Your task to perform on an android device: open app "eBay: The shopping marketplace" (install if not already installed) and enter user name: "articulated@icloud.com" and password: "excluding" Image 0: 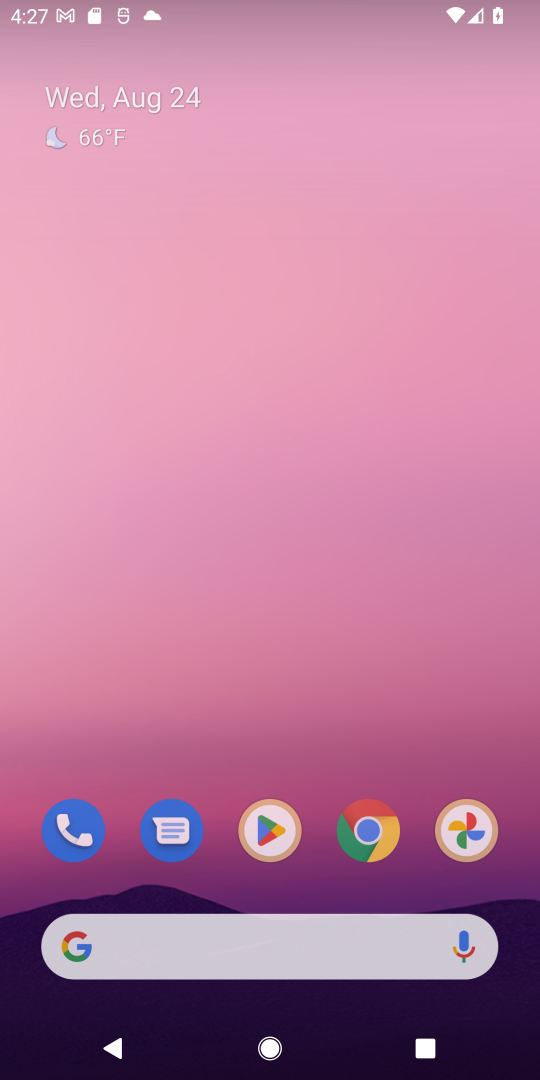
Step 0: press home button
Your task to perform on an android device: open app "eBay: The shopping marketplace" (install if not already installed) and enter user name: "articulated@icloud.com" and password: "excluding" Image 1: 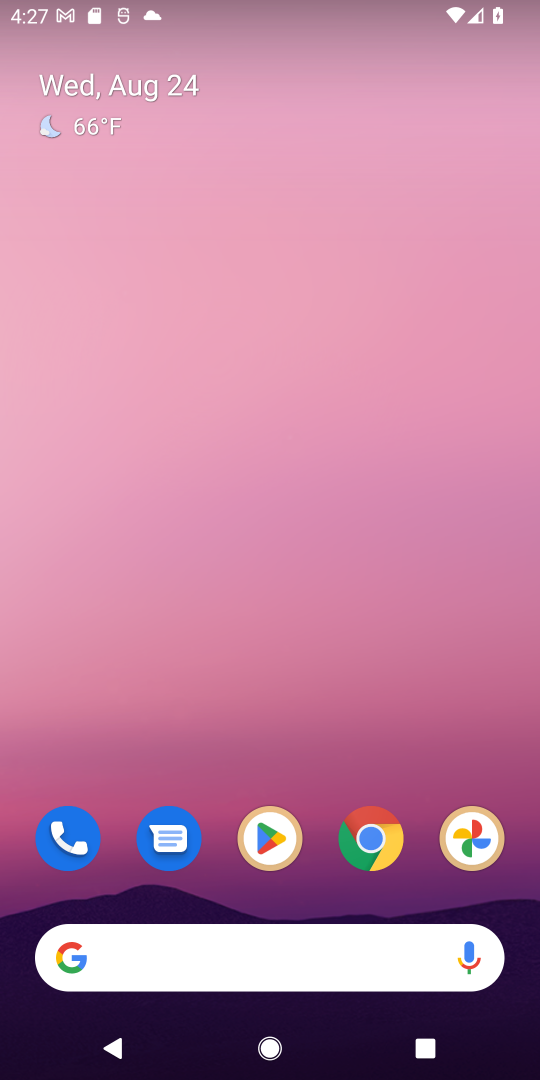
Step 1: click (267, 828)
Your task to perform on an android device: open app "eBay: The shopping marketplace" (install if not already installed) and enter user name: "articulated@icloud.com" and password: "excluding" Image 2: 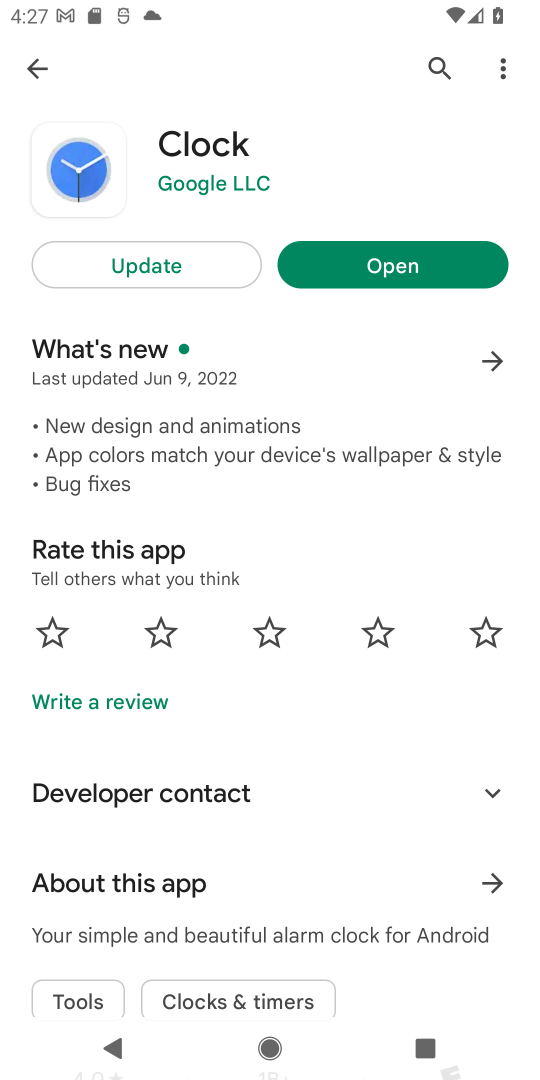
Step 2: click (442, 74)
Your task to perform on an android device: open app "eBay: The shopping marketplace" (install if not already installed) and enter user name: "articulated@icloud.com" and password: "excluding" Image 3: 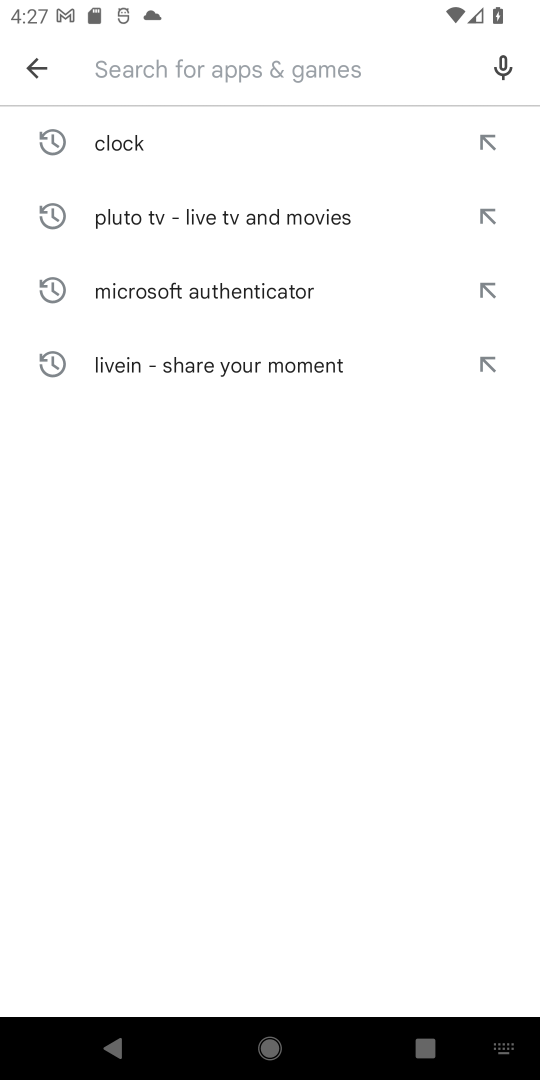
Step 3: type "eBay: The shopping marketplace"
Your task to perform on an android device: open app "eBay: The shopping marketplace" (install if not already installed) and enter user name: "articulated@icloud.com" and password: "excluding" Image 4: 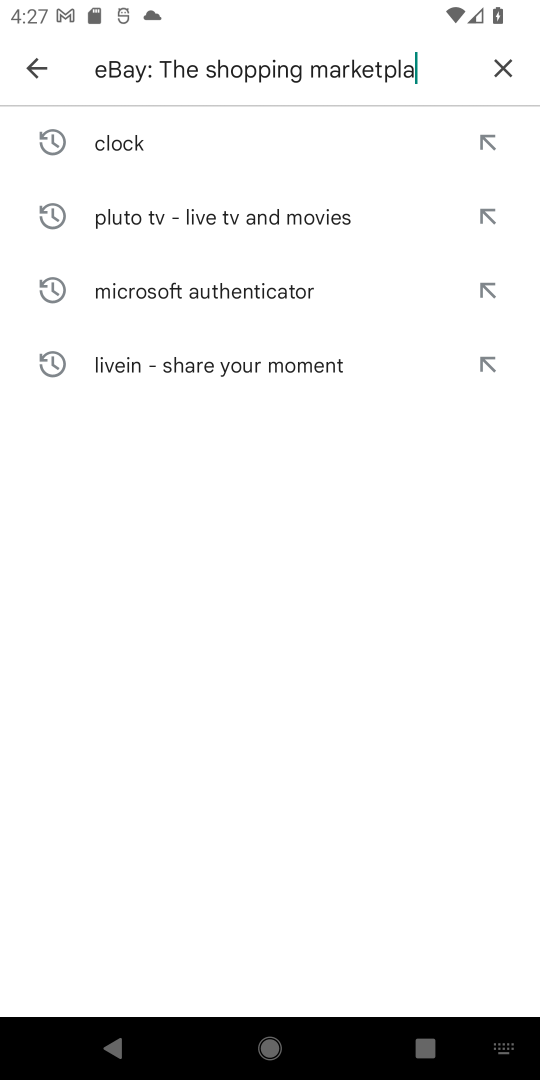
Step 4: type ""
Your task to perform on an android device: open app "eBay: The shopping marketplace" (install if not already installed) and enter user name: "articulated@icloud.com" and password: "excluding" Image 5: 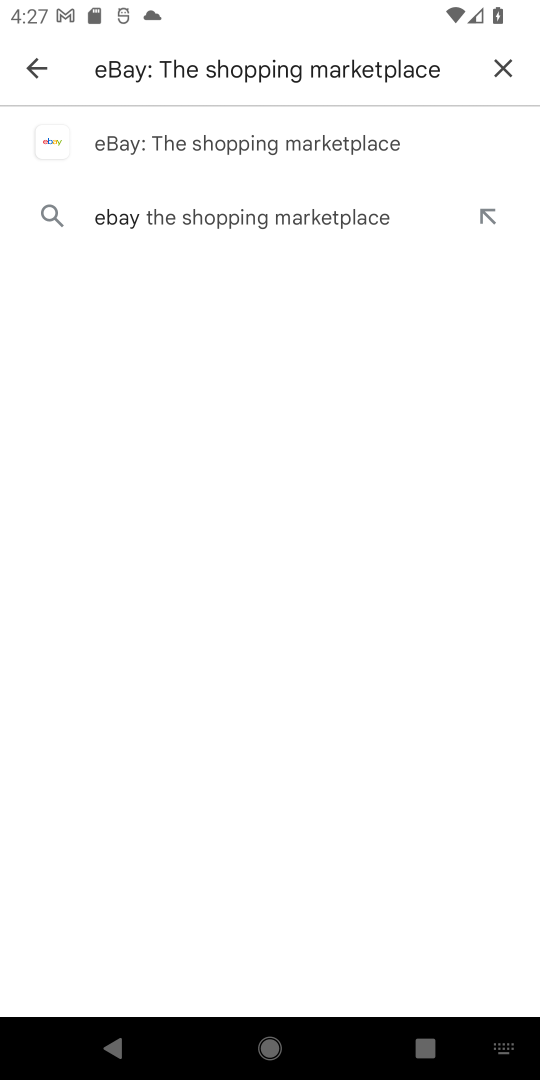
Step 5: click (427, 140)
Your task to perform on an android device: open app "eBay: The shopping marketplace" (install if not already installed) and enter user name: "articulated@icloud.com" and password: "excluding" Image 6: 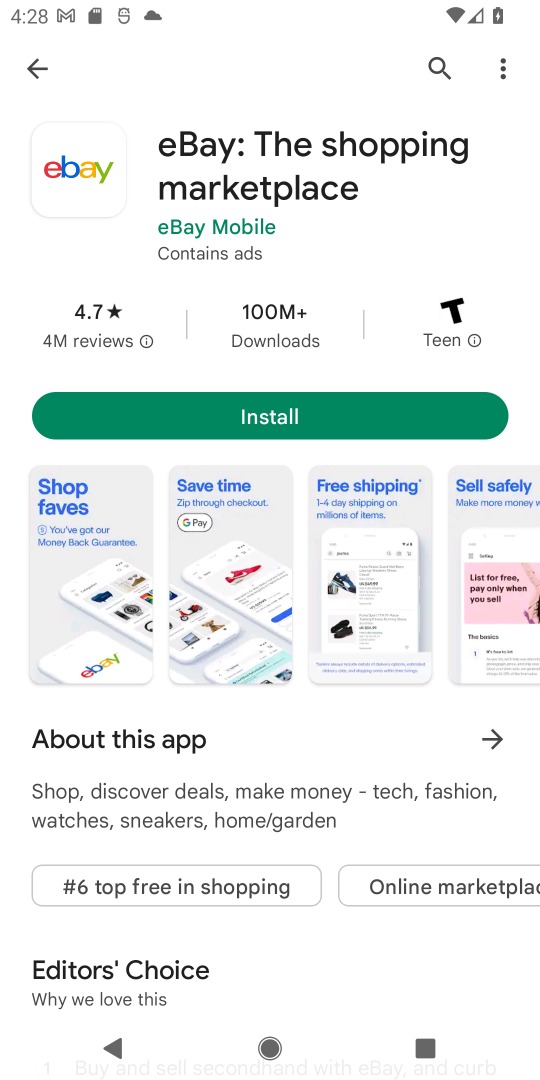
Step 6: click (330, 413)
Your task to perform on an android device: open app "eBay: The shopping marketplace" (install if not already installed) and enter user name: "articulated@icloud.com" and password: "excluding" Image 7: 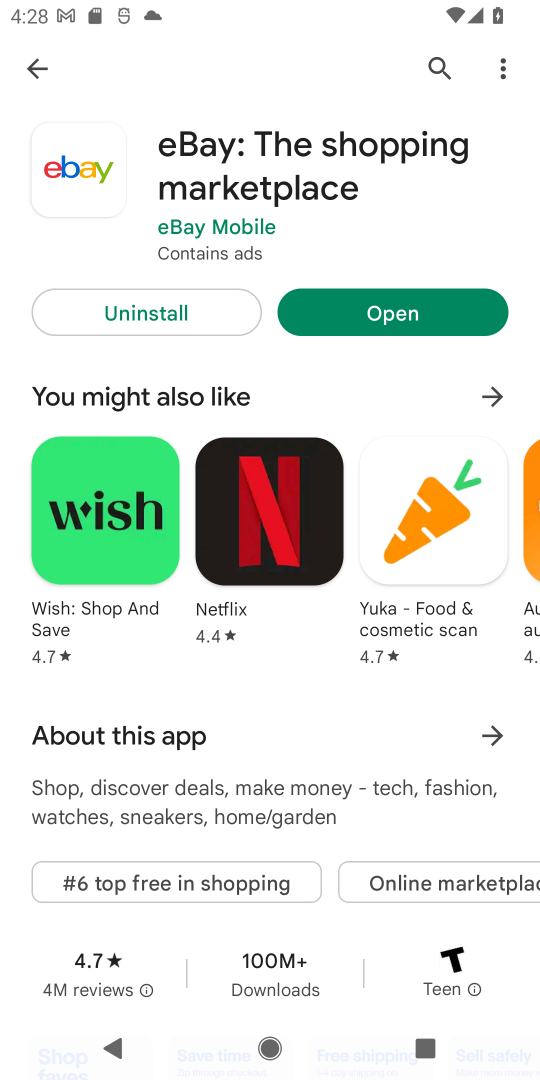
Step 7: click (397, 308)
Your task to perform on an android device: open app "eBay: The shopping marketplace" (install if not already installed) and enter user name: "articulated@icloud.com" and password: "excluding" Image 8: 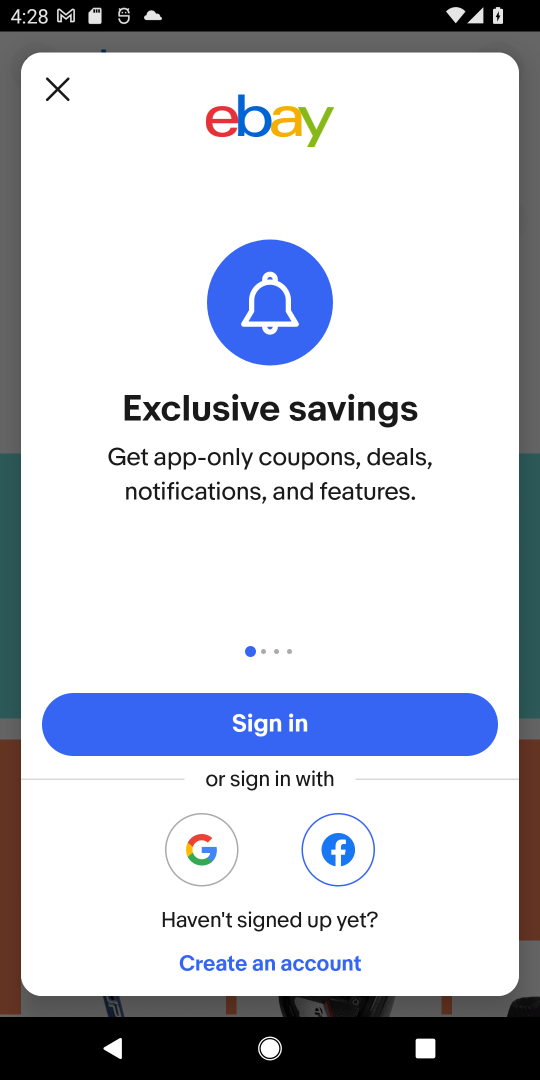
Step 8: click (270, 718)
Your task to perform on an android device: open app "eBay: The shopping marketplace" (install if not already installed) and enter user name: "articulated@icloud.com" and password: "excluding" Image 9: 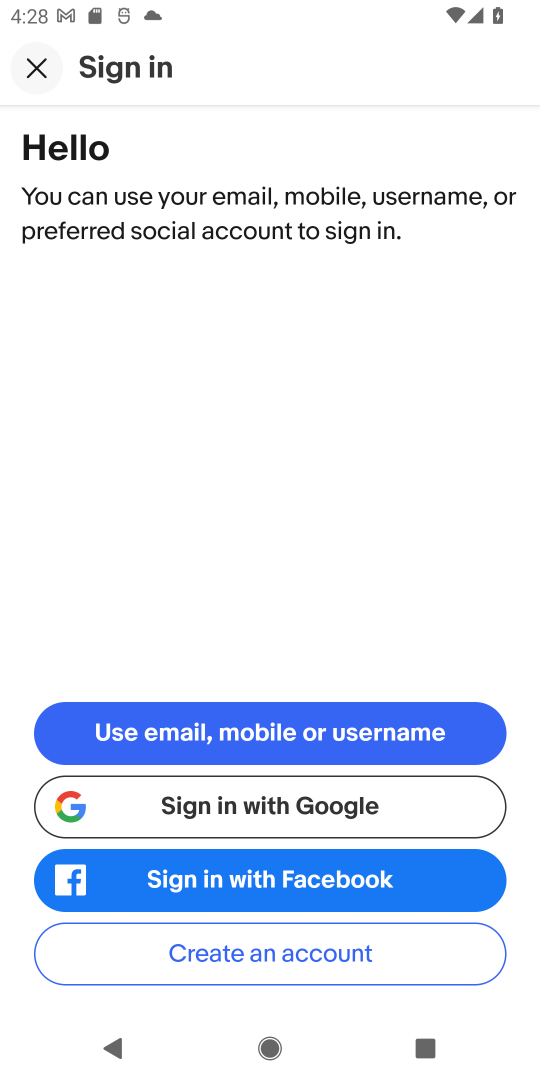
Step 9: click (245, 722)
Your task to perform on an android device: open app "eBay: The shopping marketplace" (install if not already installed) and enter user name: "articulated@icloud.com" and password: "excluding" Image 10: 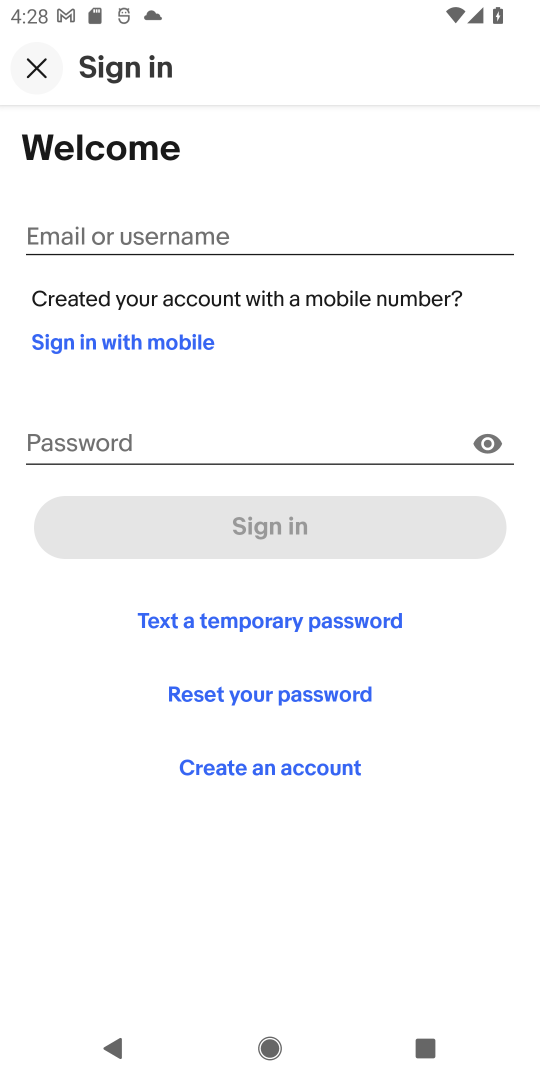
Step 10: click (91, 217)
Your task to perform on an android device: open app "eBay: The shopping marketplace" (install if not already installed) and enter user name: "articulated@icloud.com" and password: "excluding" Image 11: 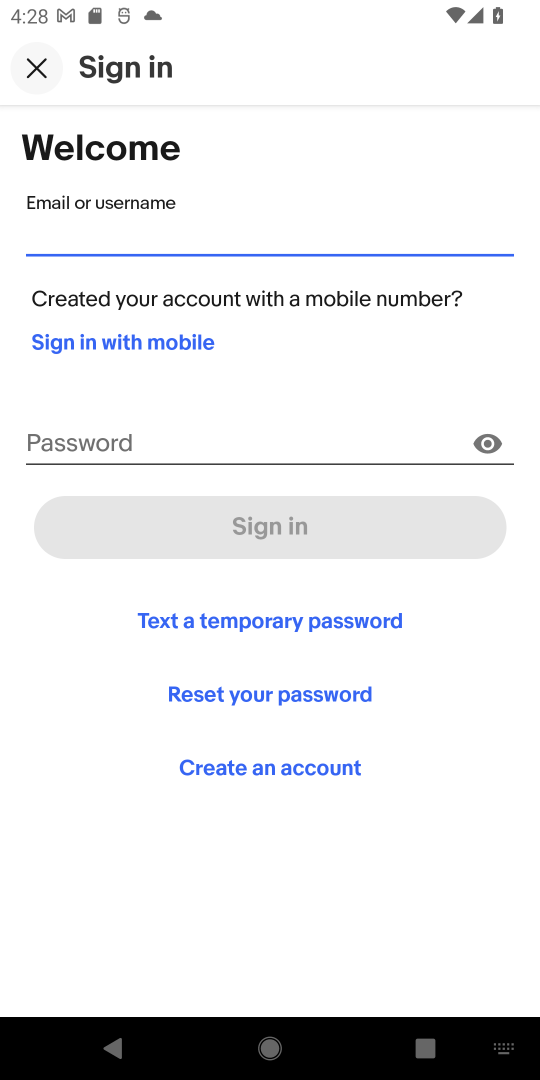
Step 11: type "articulated@icloud.com"
Your task to perform on an android device: open app "eBay: The shopping marketplace" (install if not already installed) and enter user name: "articulated@icloud.com" and password: "excluding" Image 12: 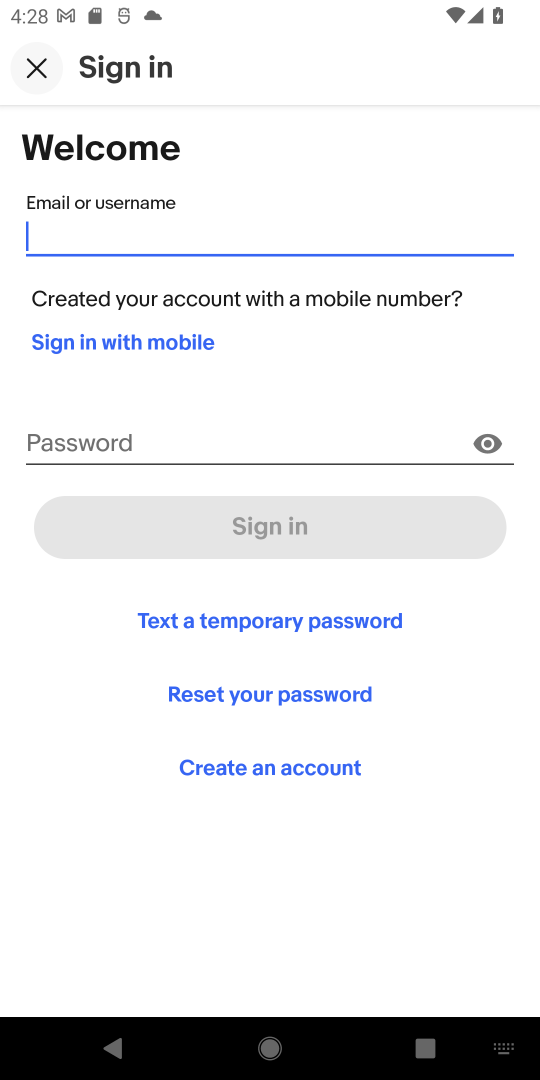
Step 12: click (116, 439)
Your task to perform on an android device: open app "eBay: The shopping marketplace" (install if not already installed) and enter user name: "articulated@icloud.com" and password: "excluding" Image 13: 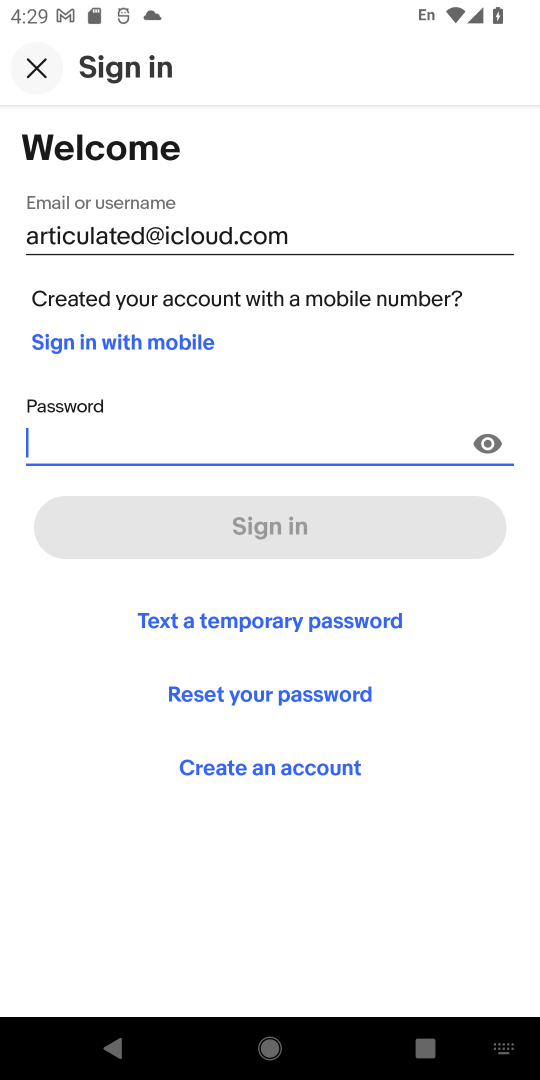
Step 13: type "excluding"
Your task to perform on an android device: open app "eBay: The shopping marketplace" (install if not already installed) and enter user name: "articulated@icloud.com" and password: "excluding" Image 14: 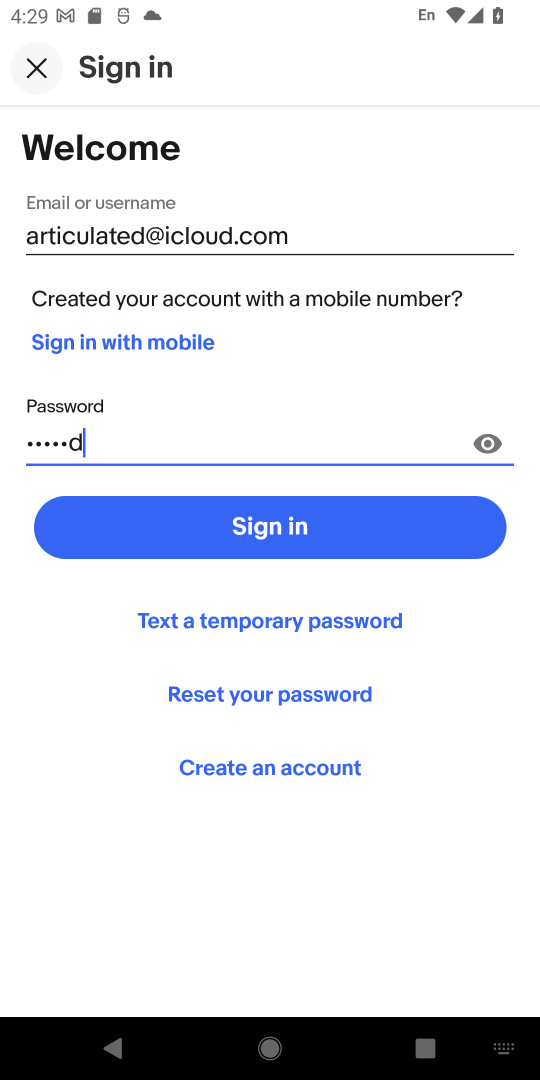
Step 14: type ""
Your task to perform on an android device: open app "eBay: The shopping marketplace" (install if not already installed) and enter user name: "articulated@icloud.com" and password: "excluding" Image 15: 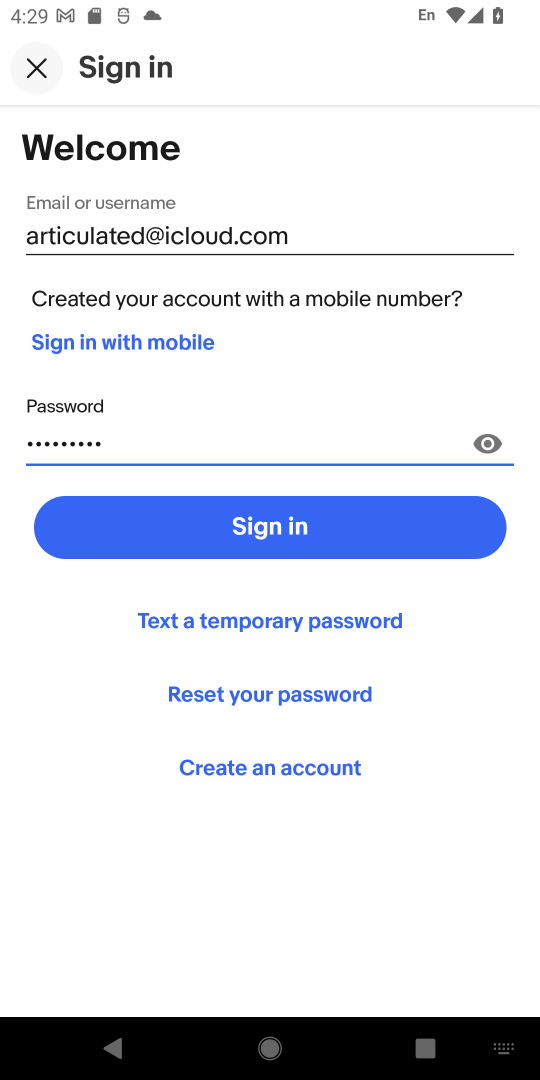
Step 15: click (281, 537)
Your task to perform on an android device: open app "eBay: The shopping marketplace" (install if not already installed) and enter user name: "articulated@icloud.com" and password: "excluding" Image 16: 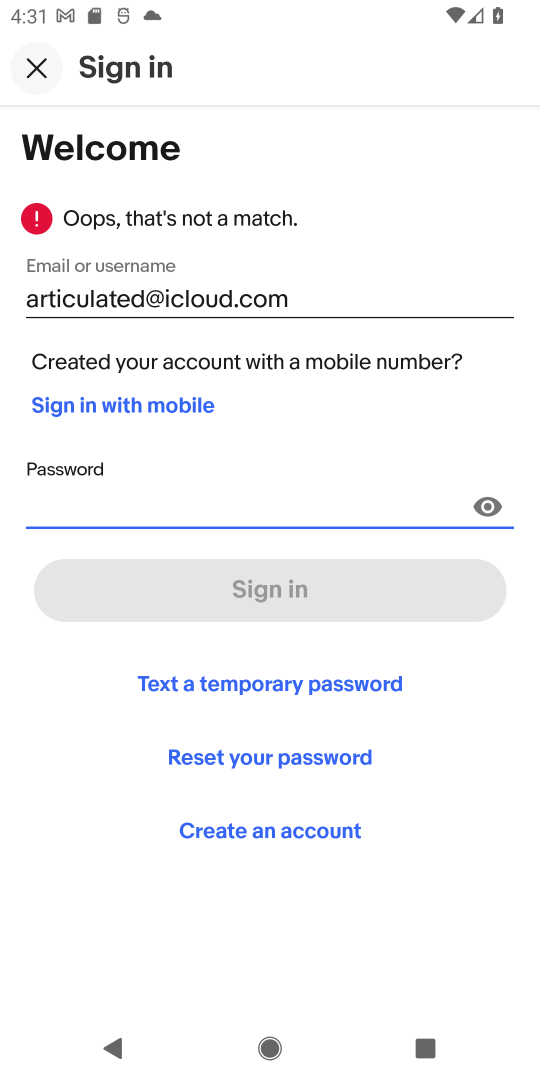
Step 16: task complete